Your task to perform on an android device: allow notifications from all sites in the chrome app Image 0: 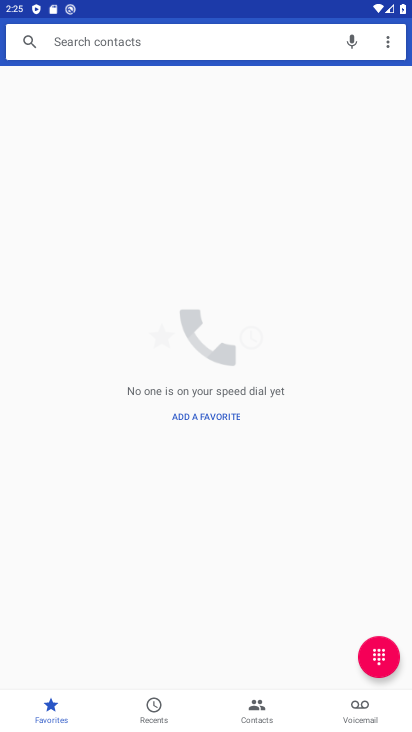
Step 0: press back button
Your task to perform on an android device: allow notifications from all sites in the chrome app Image 1: 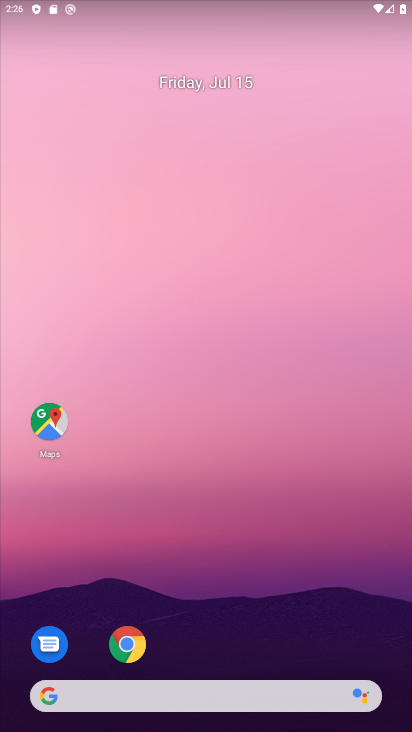
Step 1: drag from (263, 637) to (297, 4)
Your task to perform on an android device: allow notifications from all sites in the chrome app Image 2: 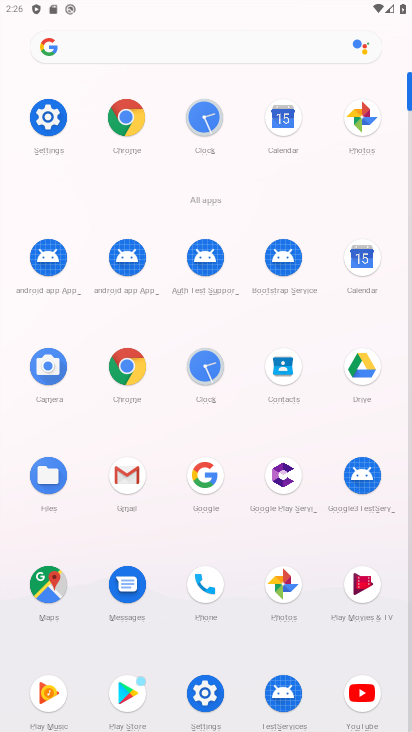
Step 2: click (133, 116)
Your task to perform on an android device: allow notifications from all sites in the chrome app Image 3: 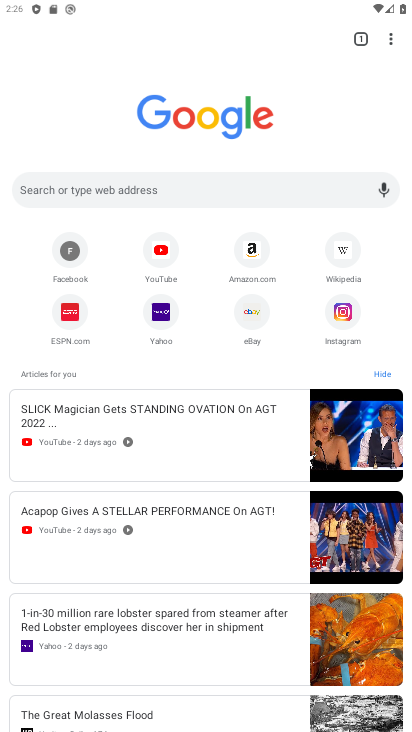
Step 3: drag from (394, 35) to (256, 329)
Your task to perform on an android device: allow notifications from all sites in the chrome app Image 4: 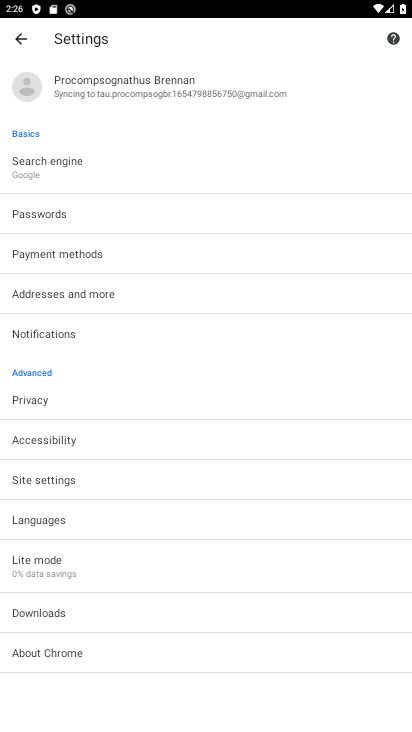
Step 4: click (31, 339)
Your task to perform on an android device: allow notifications from all sites in the chrome app Image 5: 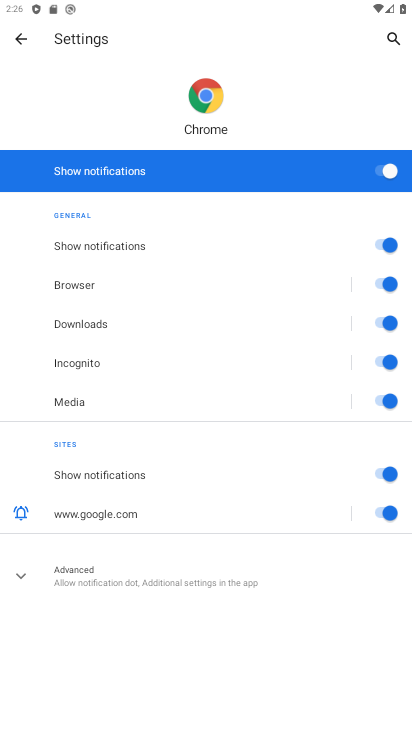
Step 5: task complete